Your task to perform on an android device: Go to Amazon Image 0: 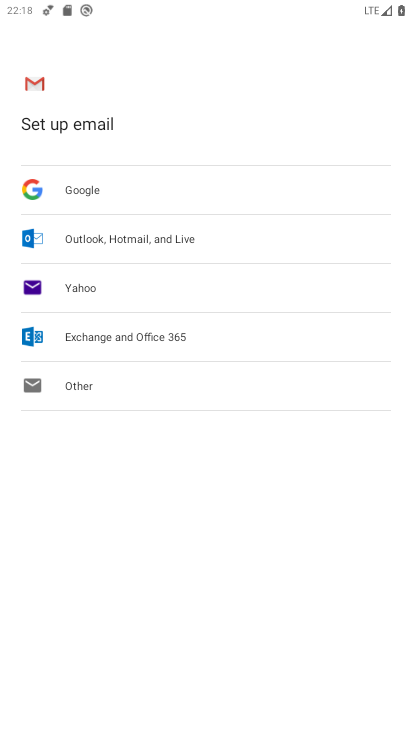
Step 0: press home button
Your task to perform on an android device: Go to Amazon Image 1: 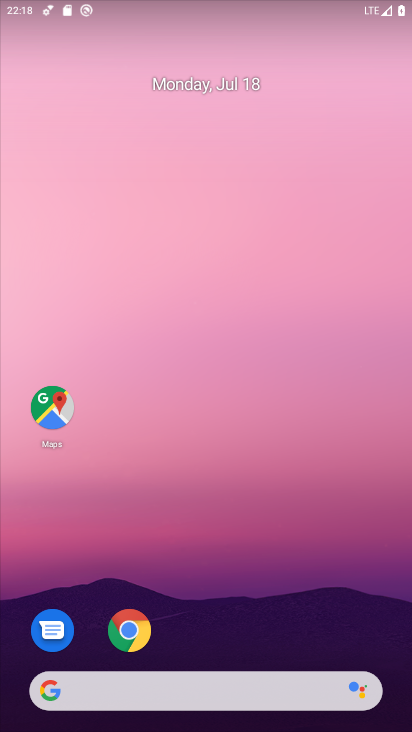
Step 1: drag from (226, 648) to (234, 180)
Your task to perform on an android device: Go to Amazon Image 2: 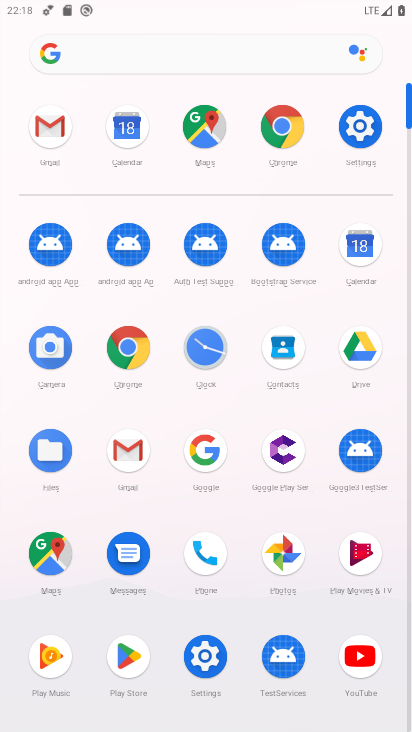
Step 2: click (289, 135)
Your task to perform on an android device: Go to Amazon Image 3: 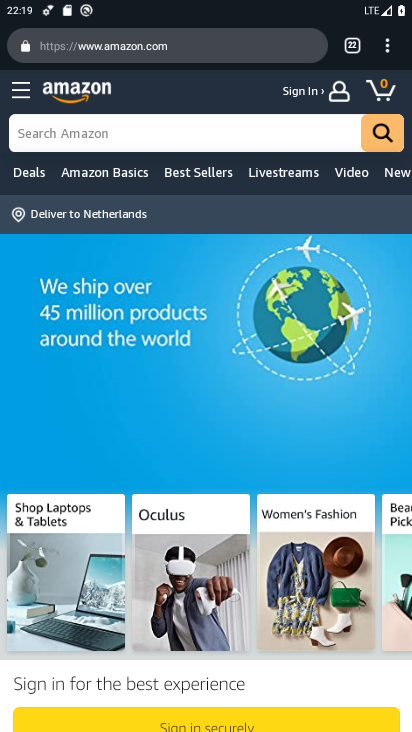
Step 3: task complete